Your task to perform on an android device: Open Google Maps Image 0: 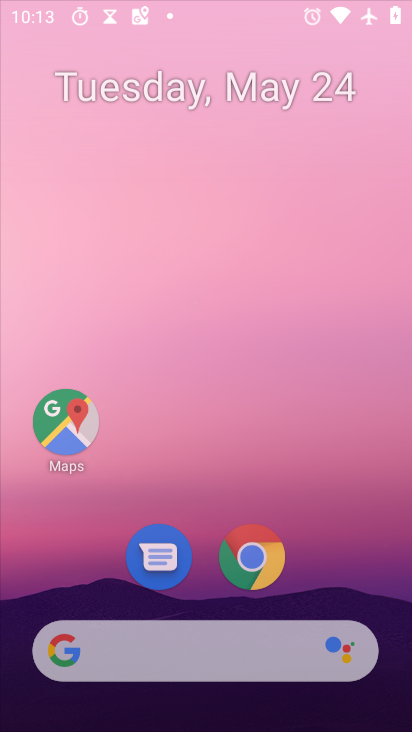
Step 0: click (390, 28)
Your task to perform on an android device: Open Google Maps Image 1: 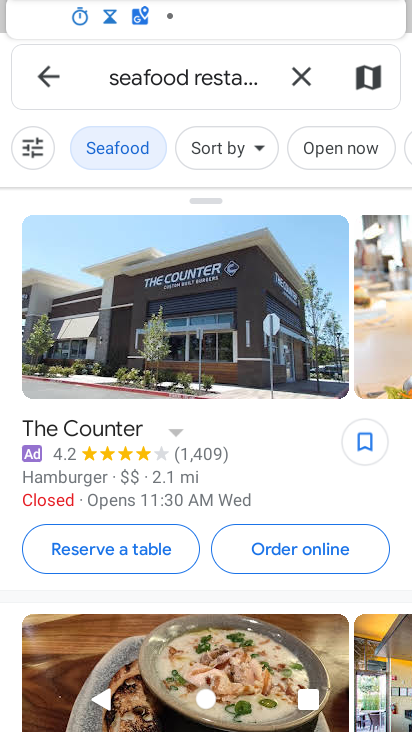
Step 1: press home button
Your task to perform on an android device: Open Google Maps Image 2: 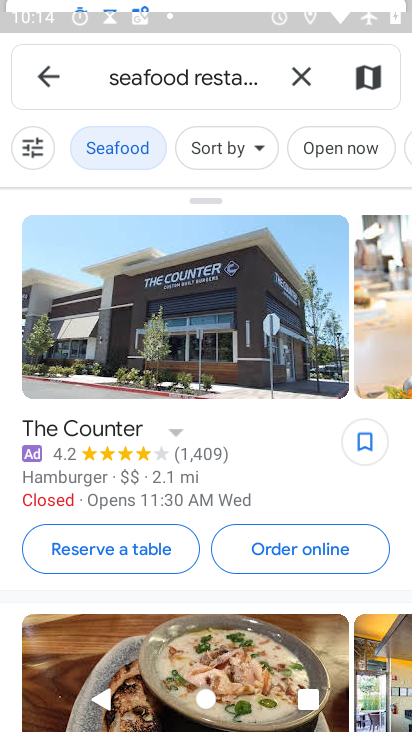
Step 2: drag from (390, 28) to (411, 481)
Your task to perform on an android device: Open Google Maps Image 3: 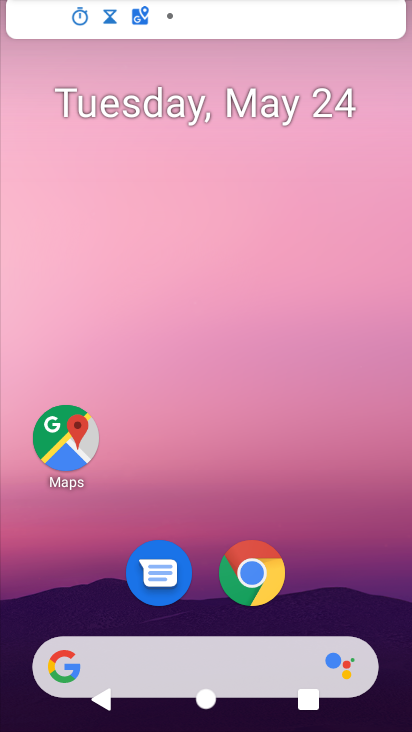
Step 3: drag from (370, 566) to (356, 25)
Your task to perform on an android device: Open Google Maps Image 4: 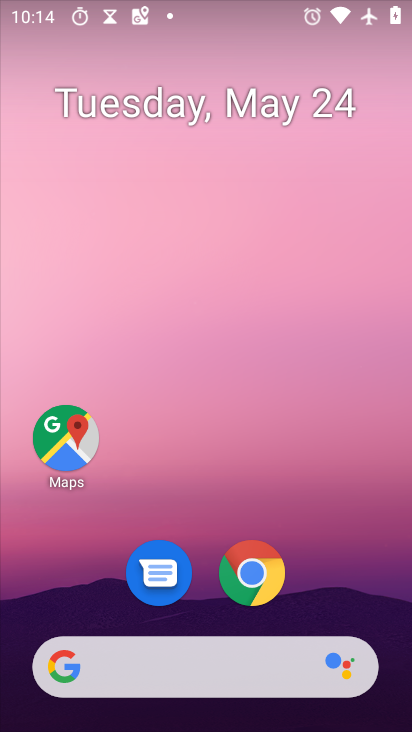
Step 4: drag from (333, 536) to (381, 12)
Your task to perform on an android device: Open Google Maps Image 5: 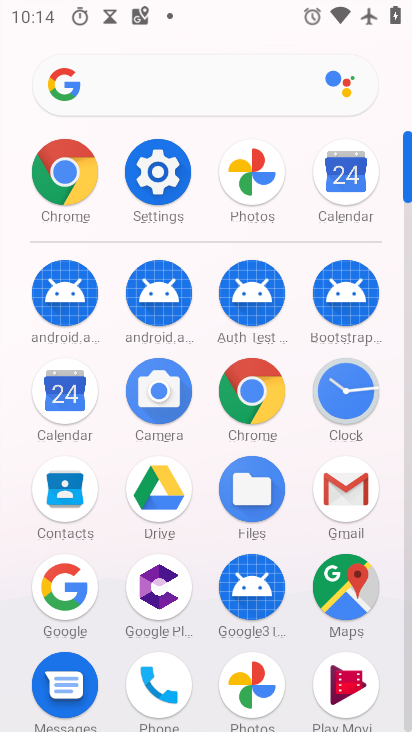
Step 5: click (71, 599)
Your task to perform on an android device: Open Google Maps Image 6: 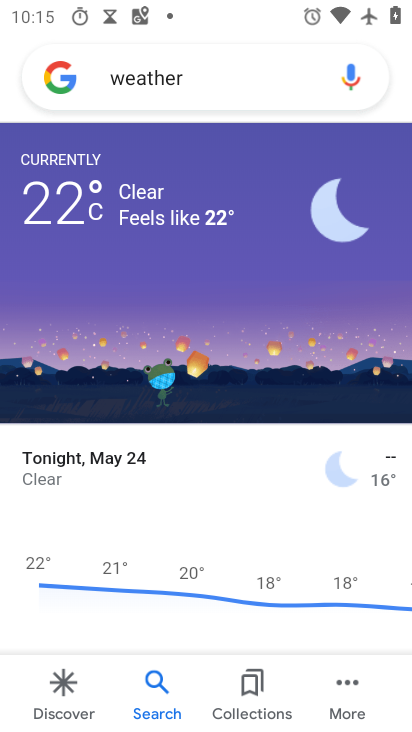
Step 6: task complete